Your task to perform on an android device: What's the weather? Image 0: 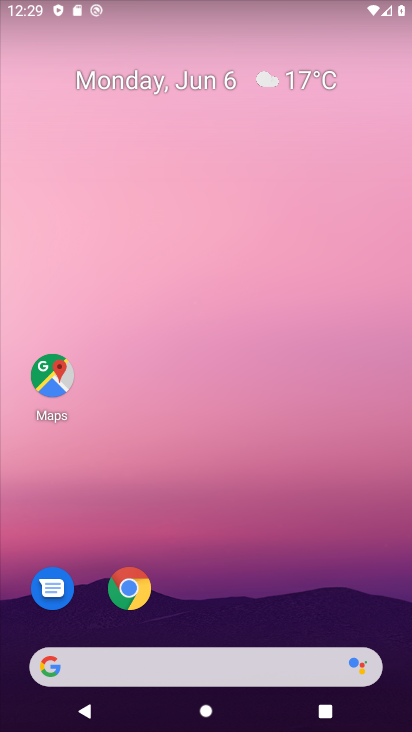
Step 0: click (312, 75)
Your task to perform on an android device: What's the weather? Image 1: 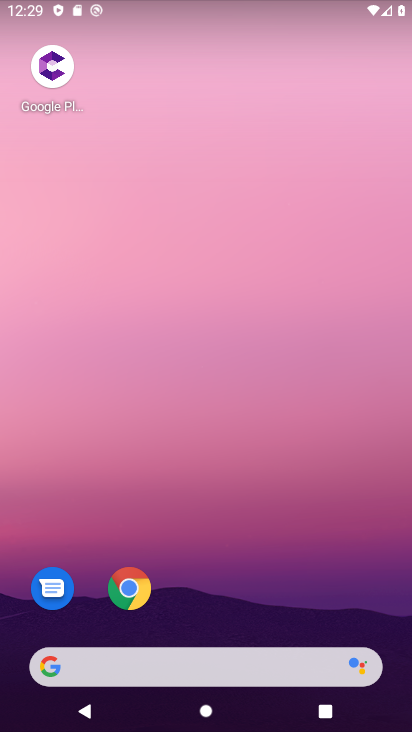
Step 1: press home button
Your task to perform on an android device: What's the weather? Image 2: 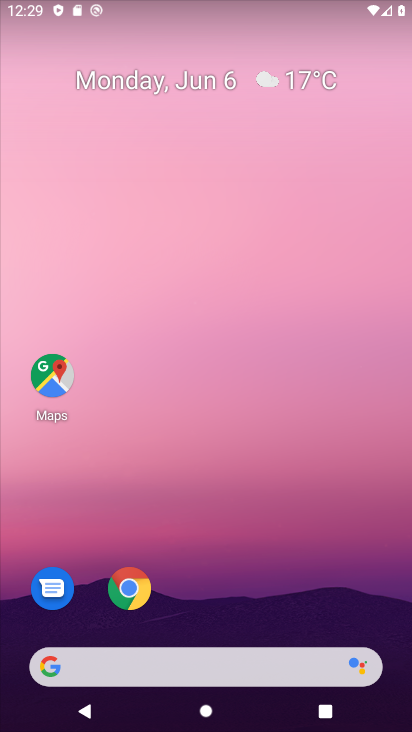
Step 2: click (320, 76)
Your task to perform on an android device: What's the weather? Image 3: 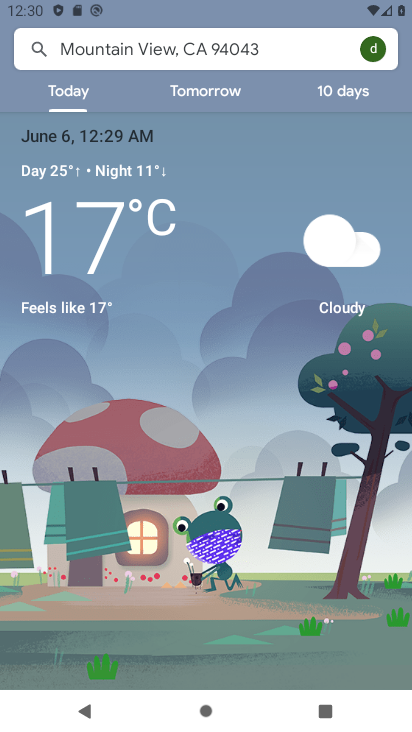
Step 3: task complete